Your task to perform on an android device: find snoozed emails in the gmail app Image 0: 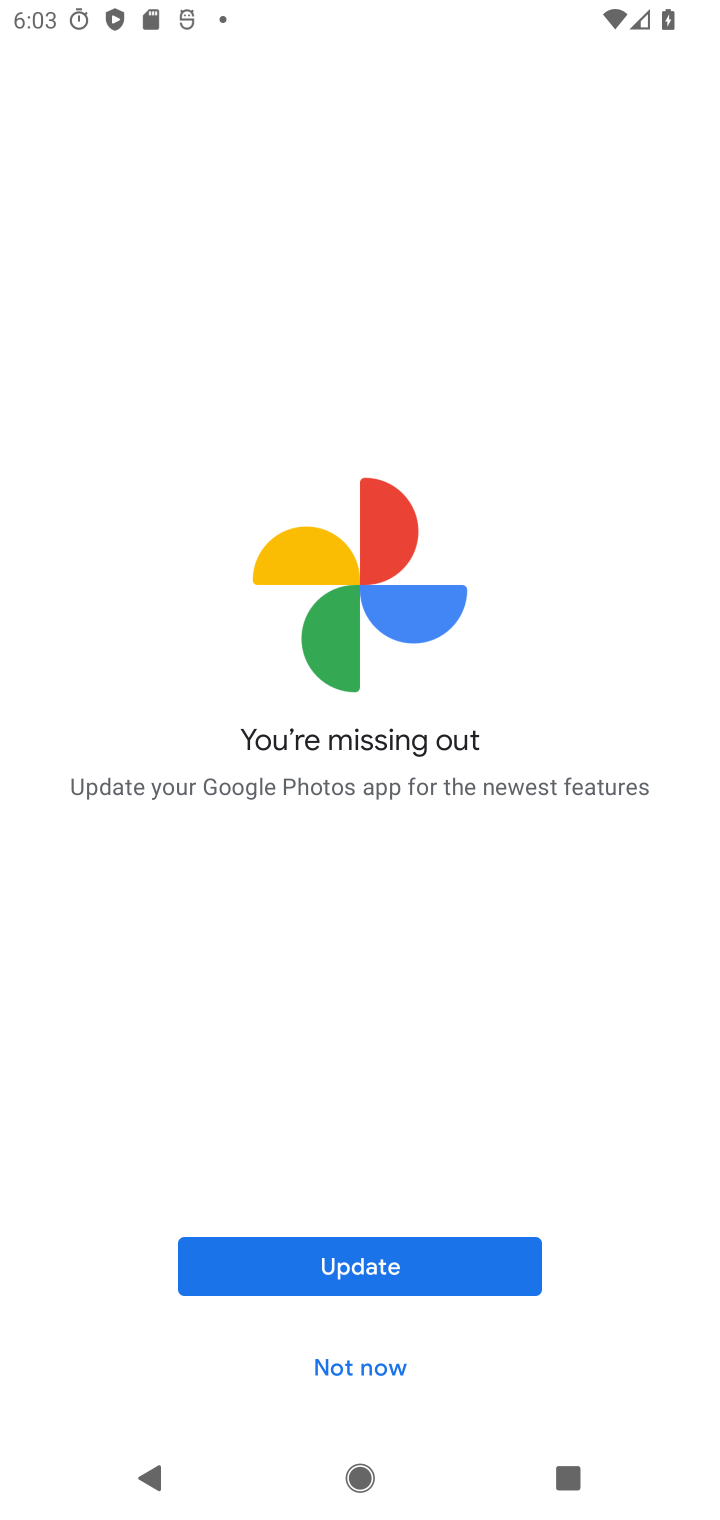
Step 0: press home button
Your task to perform on an android device: find snoozed emails in the gmail app Image 1: 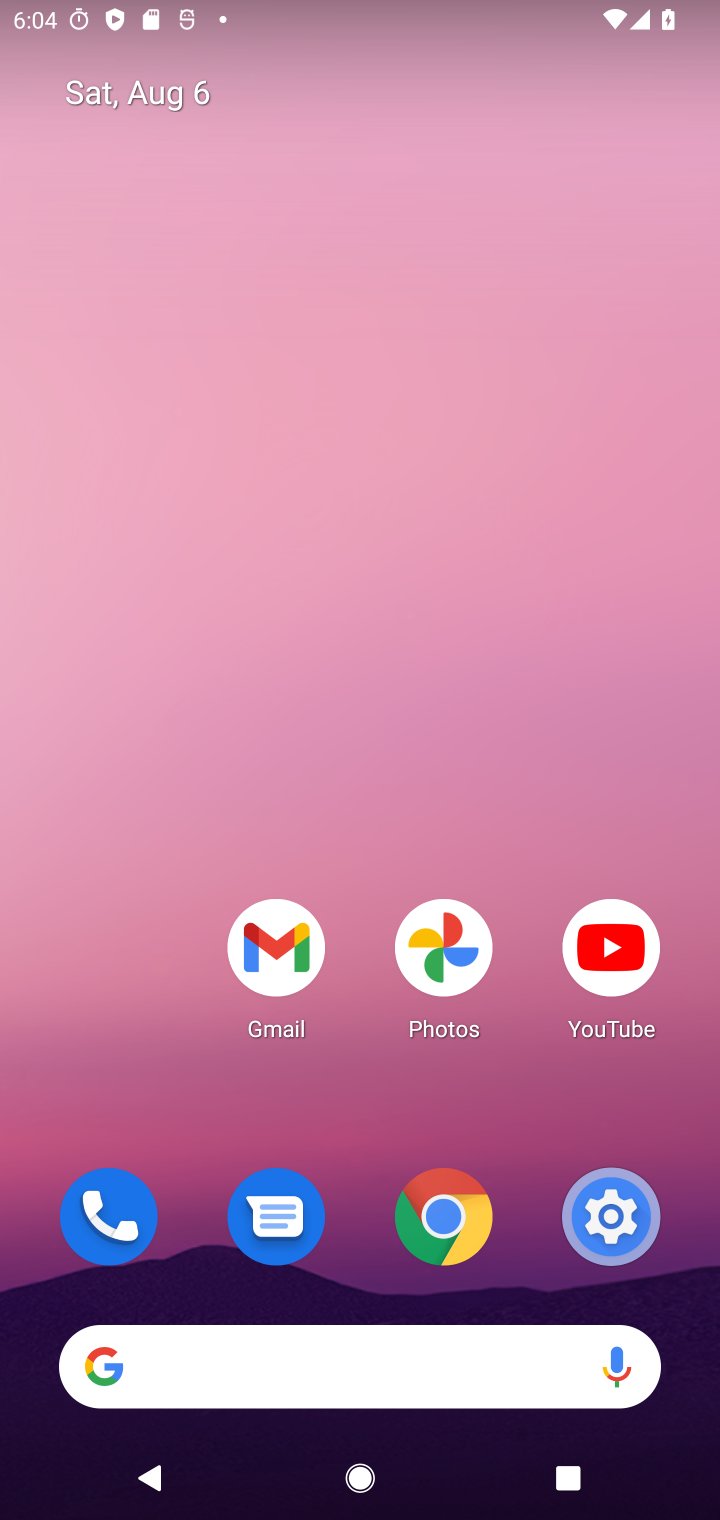
Step 1: drag from (364, 1135) to (392, 111)
Your task to perform on an android device: find snoozed emails in the gmail app Image 2: 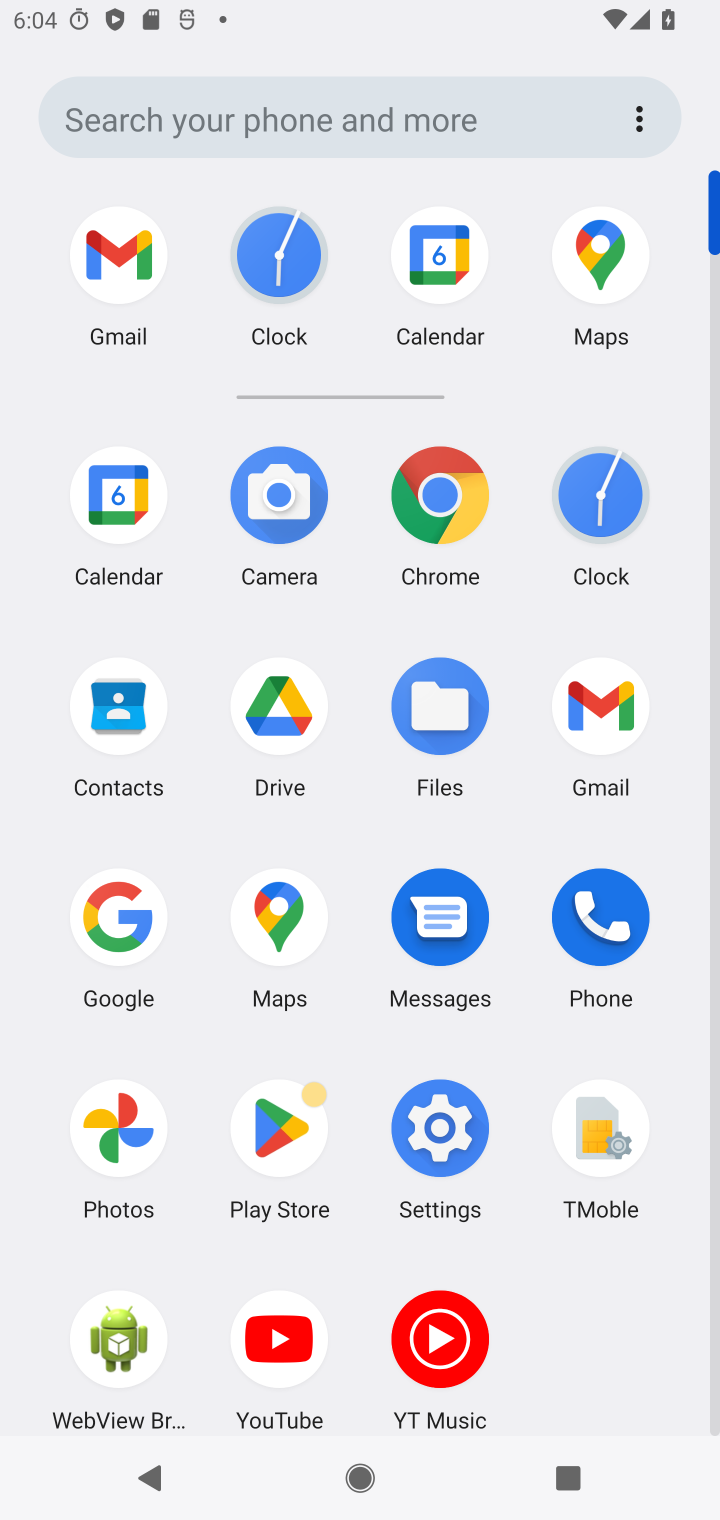
Step 2: click (594, 722)
Your task to perform on an android device: find snoozed emails in the gmail app Image 3: 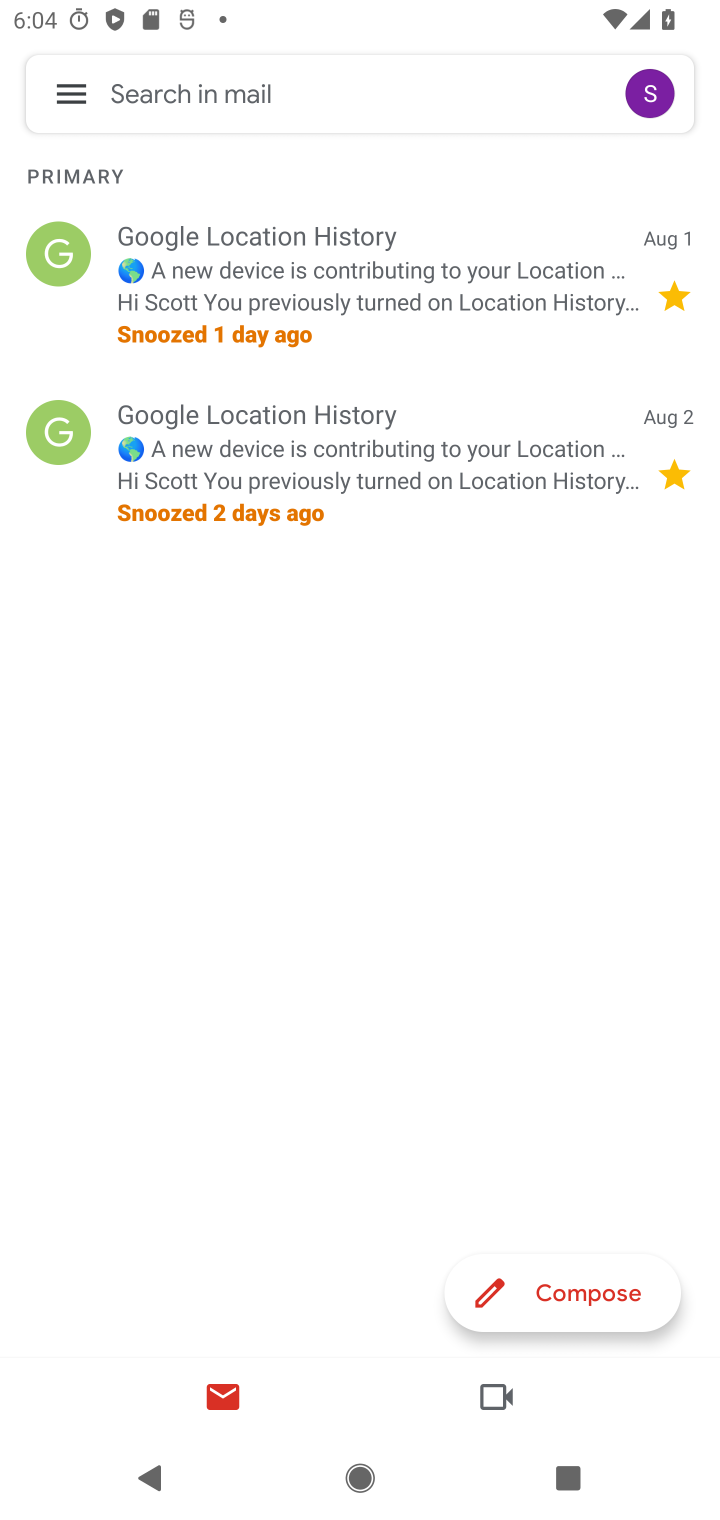
Step 3: click (70, 81)
Your task to perform on an android device: find snoozed emails in the gmail app Image 4: 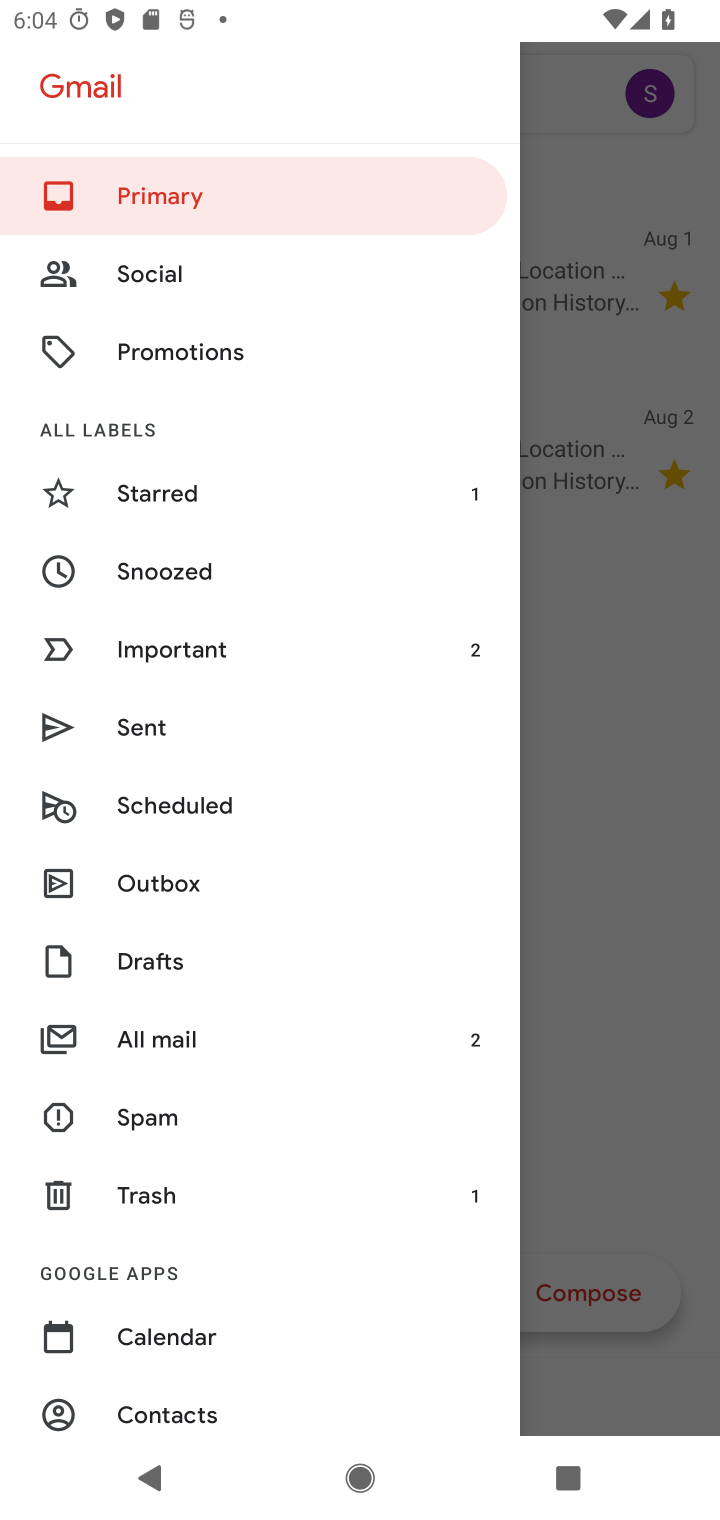
Step 4: click (167, 560)
Your task to perform on an android device: find snoozed emails in the gmail app Image 5: 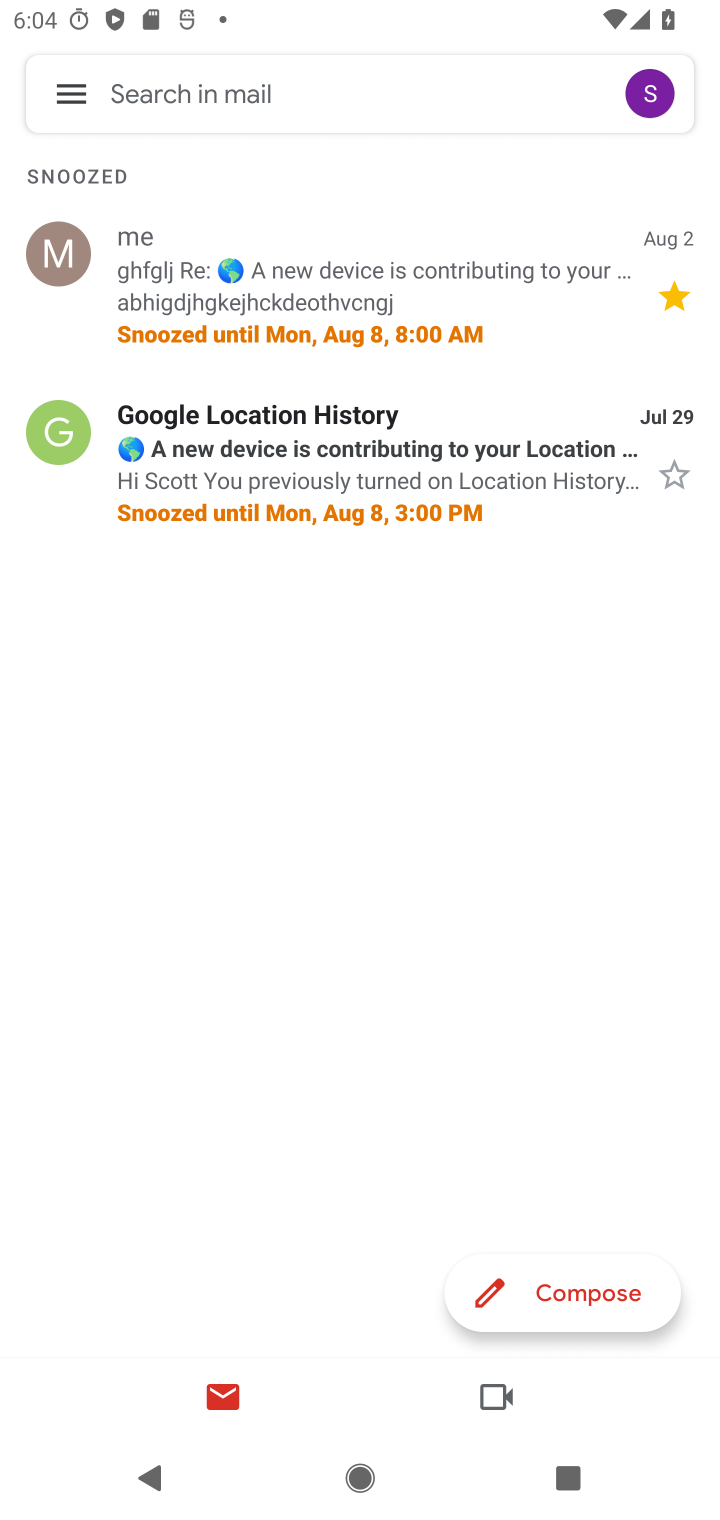
Step 5: task complete